Your task to perform on an android device: Open Reddit.com Image 0: 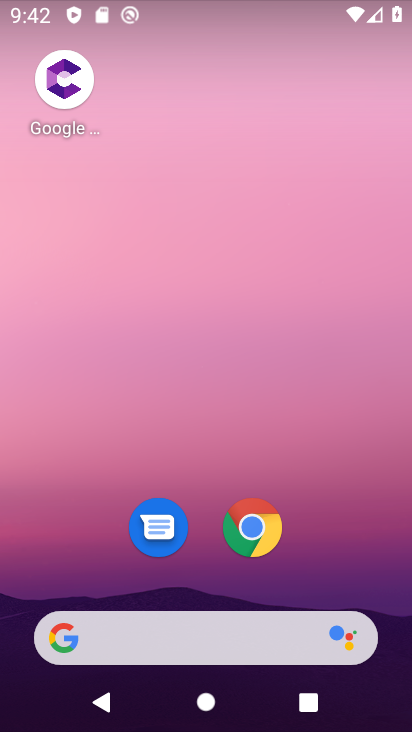
Step 0: click (251, 526)
Your task to perform on an android device: Open Reddit.com Image 1: 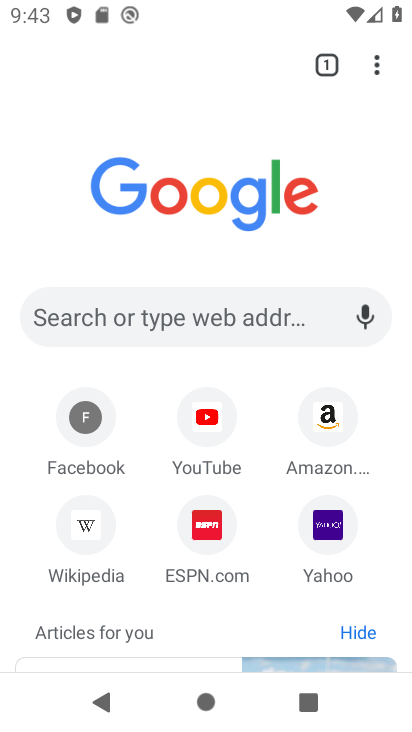
Step 1: click (227, 322)
Your task to perform on an android device: Open Reddit.com Image 2: 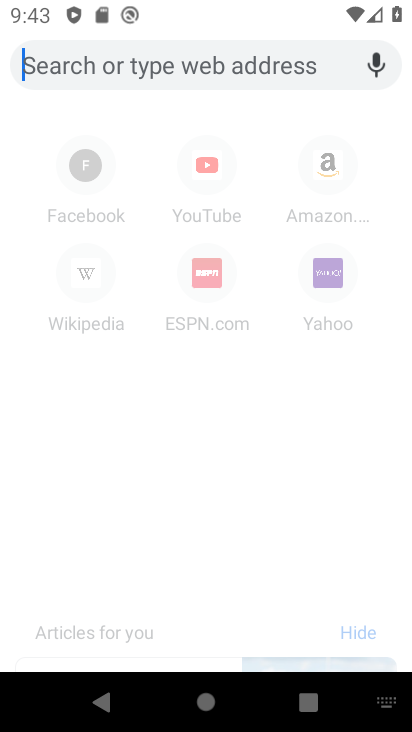
Step 2: type "Reddit.com"
Your task to perform on an android device: Open Reddit.com Image 3: 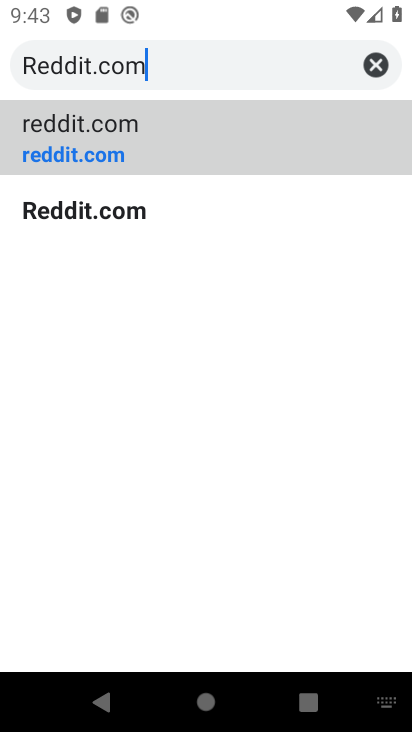
Step 3: type ""
Your task to perform on an android device: Open Reddit.com Image 4: 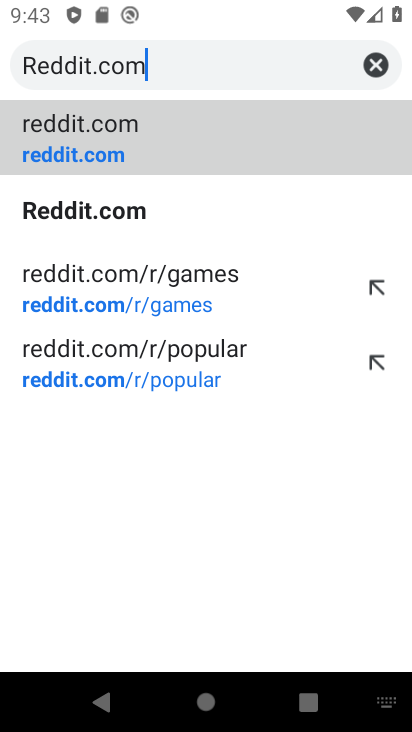
Step 4: click (98, 204)
Your task to perform on an android device: Open Reddit.com Image 5: 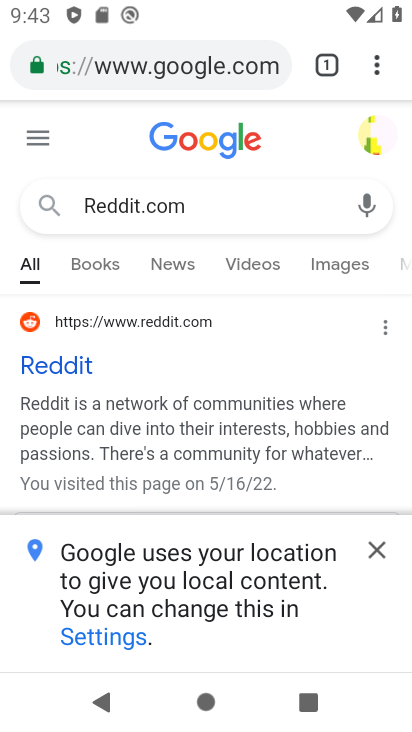
Step 5: click (61, 369)
Your task to perform on an android device: Open Reddit.com Image 6: 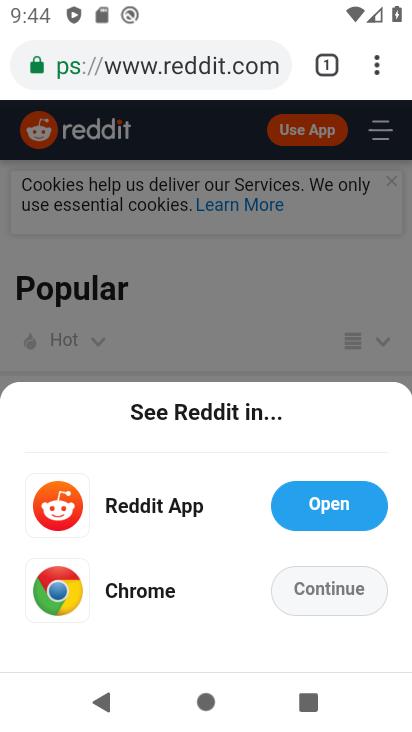
Step 6: click (300, 598)
Your task to perform on an android device: Open Reddit.com Image 7: 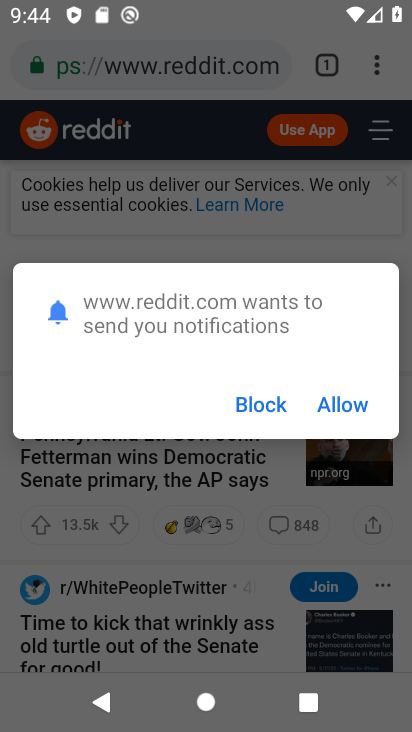
Step 7: click (352, 409)
Your task to perform on an android device: Open Reddit.com Image 8: 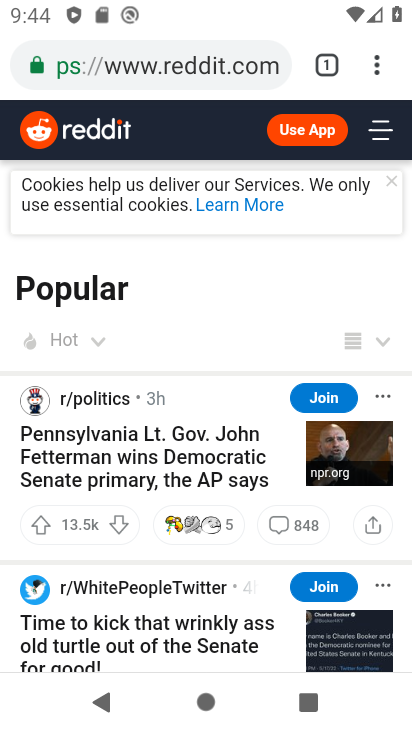
Step 8: task complete